Your task to perform on an android device: toggle improve location accuracy Image 0: 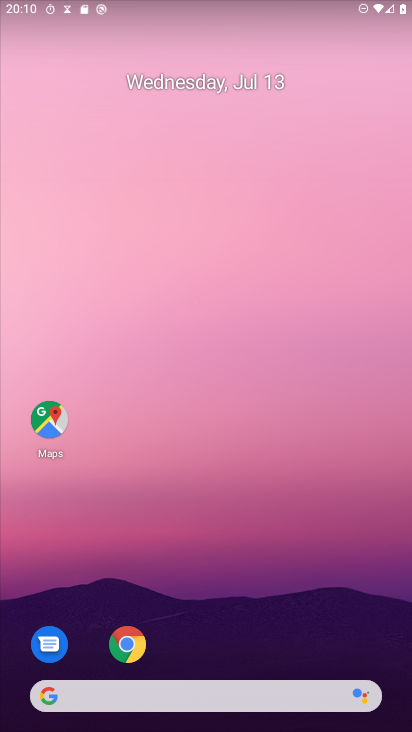
Step 0: drag from (229, 633) to (256, 6)
Your task to perform on an android device: toggle improve location accuracy Image 1: 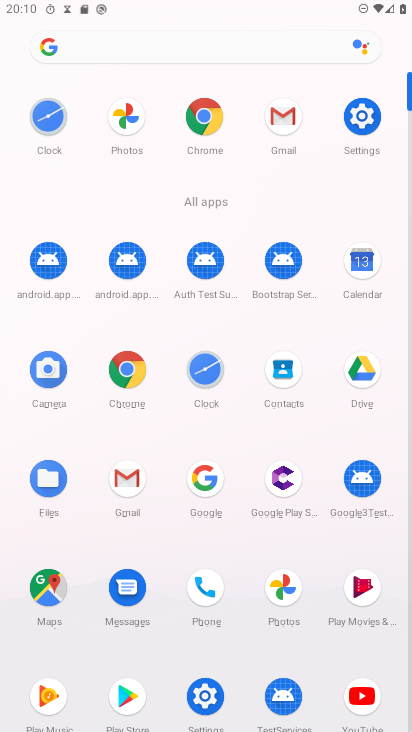
Step 1: click (357, 150)
Your task to perform on an android device: toggle improve location accuracy Image 2: 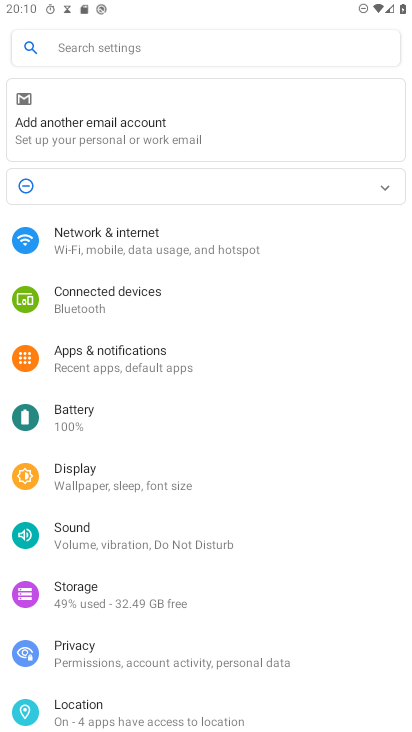
Step 2: click (89, 725)
Your task to perform on an android device: toggle improve location accuracy Image 3: 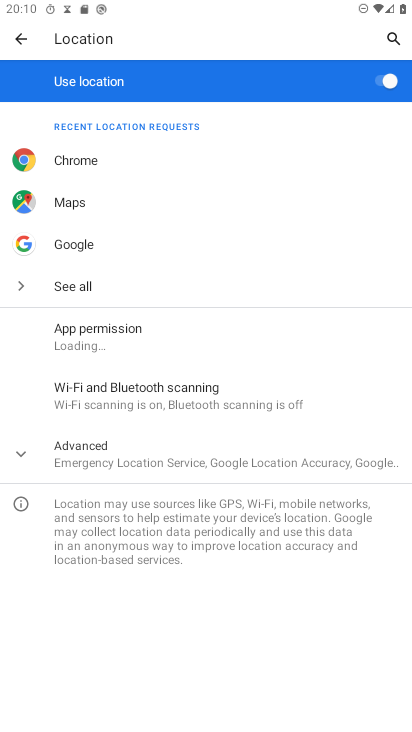
Step 3: click (137, 441)
Your task to perform on an android device: toggle improve location accuracy Image 4: 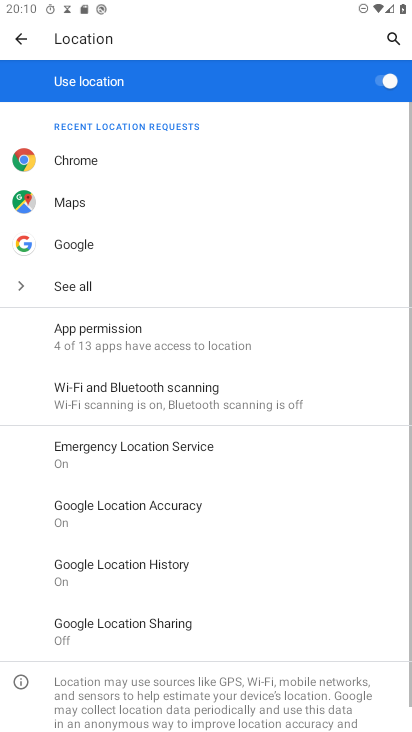
Step 4: click (175, 503)
Your task to perform on an android device: toggle improve location accuracy Image 5: 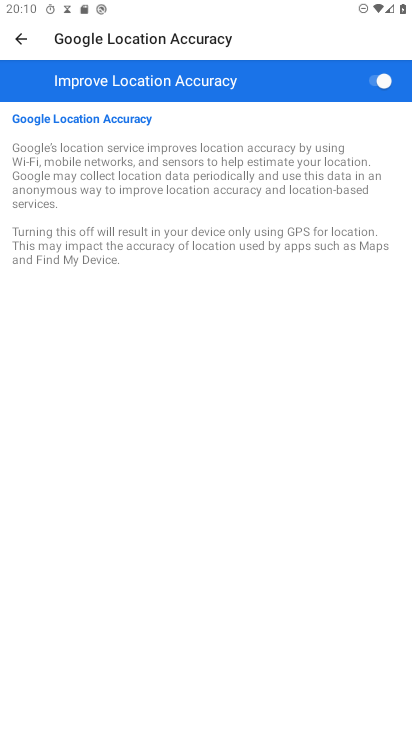
Step 5: click (380, 84)
Your task to perform on an android device: toggle improve location accuracy Image 6: 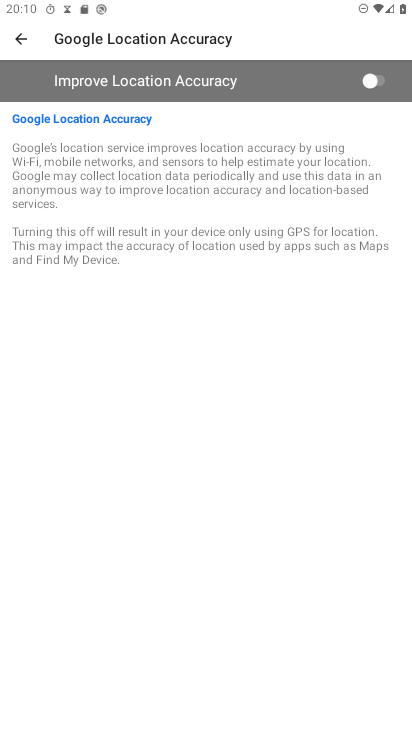
Step 6: task complete